Your task to perform on an android device: Open Maps and search for coffee Image 0: 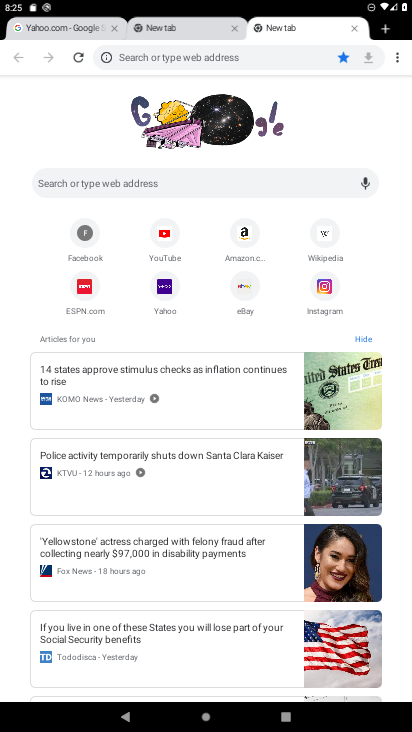
Step 0: press home button
Your task to perform on an android device: Open Maps and search for coffee Image 1: 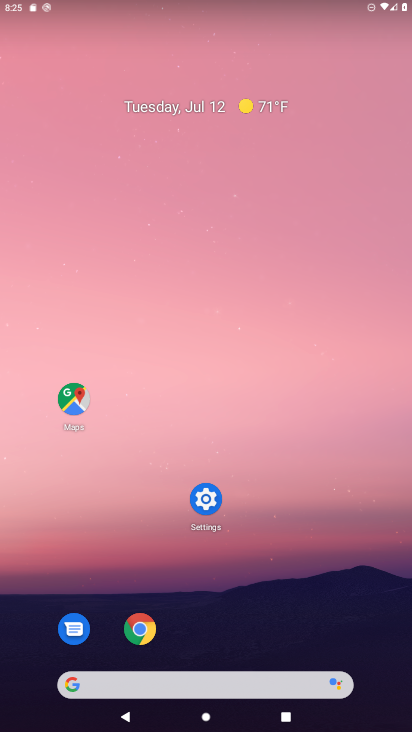
Step 1: click (64, 402)
Your task to perform on an android device: Open Maps and search for coffee Image 2: 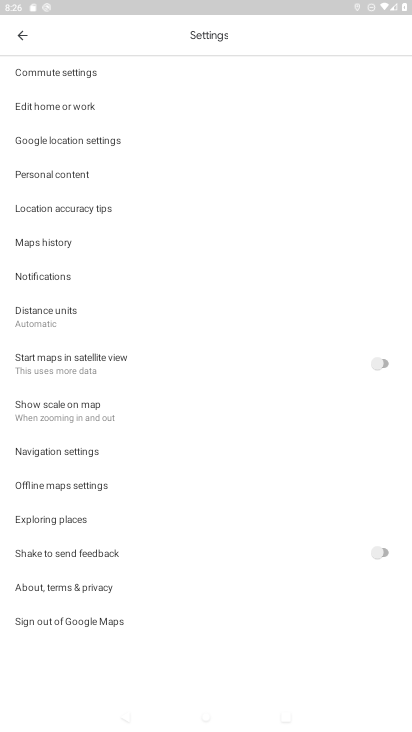
Step 2: click (24, 37)
Your task to perform on an android device: Open Maps and search for coffee Image 3: 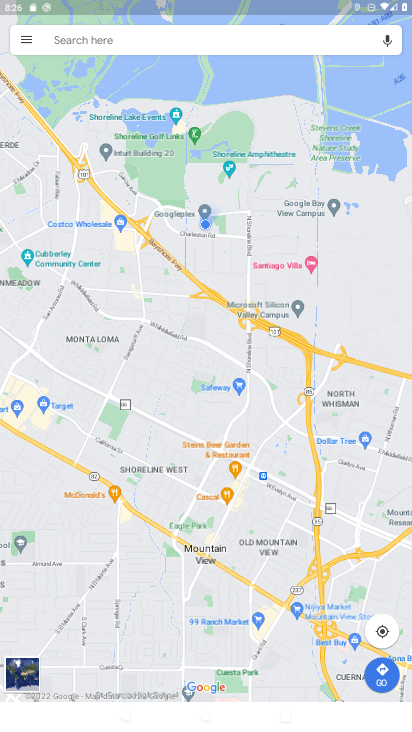
Step 3: click (116, 41)
Your task to perform on an android device: Open Maps and search for coffee Image 4: 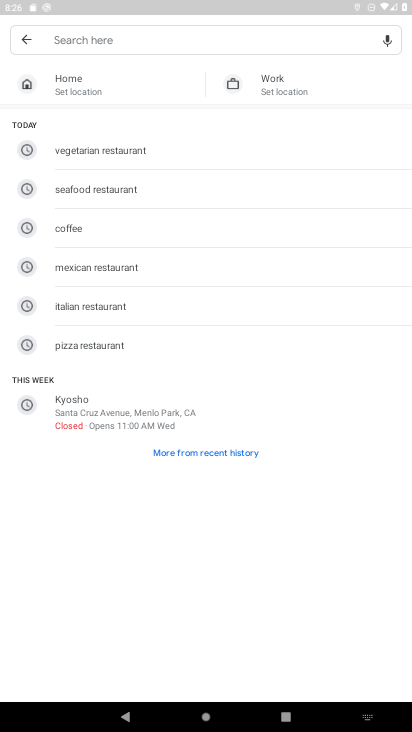
Step 4: type "coffee"
Your task to perform on an android device: Open Maps and search for coffee Image 5: 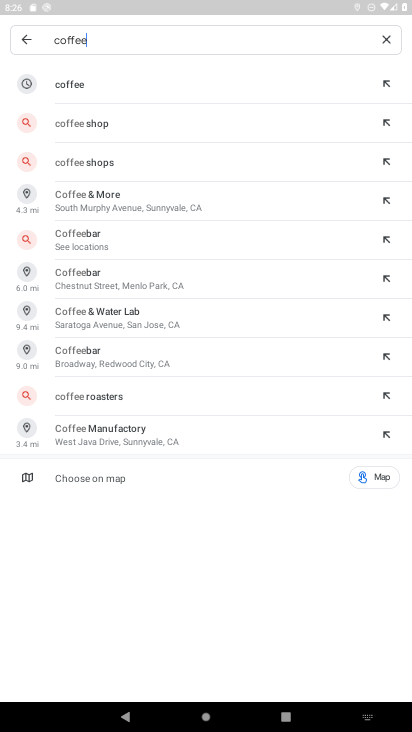
Step 5: click (73, 88)
Your task to perform on an android device: Open Maps and search for coffee Image 6: 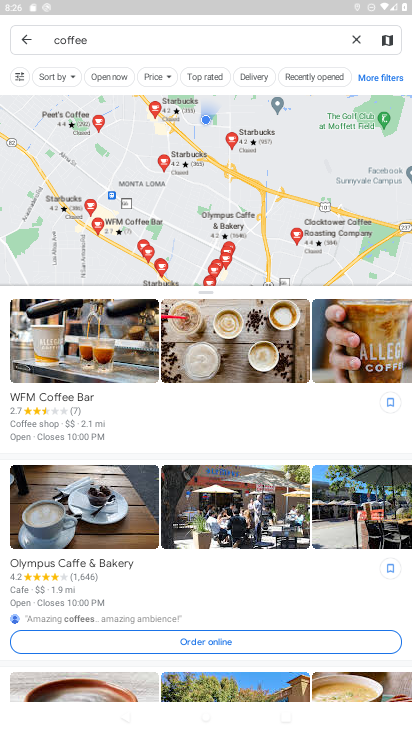
Step 6: task complete